Your task to perform on an android device: turn on wifi Image 0: 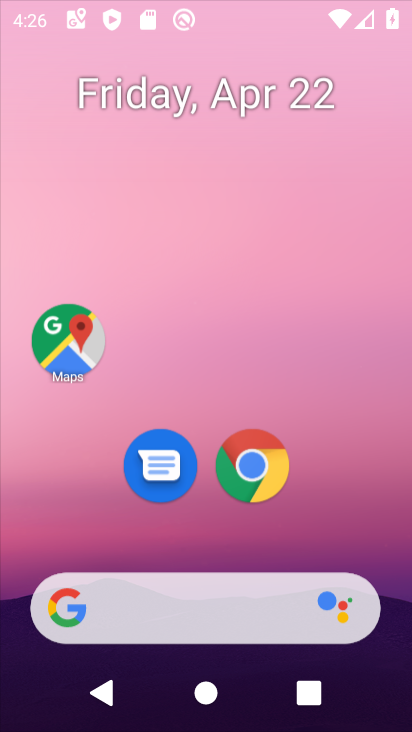
Step 0: drag from (349, 379) to (323, 304)
Your task to perform on an android device: turn on wifi Image 1: 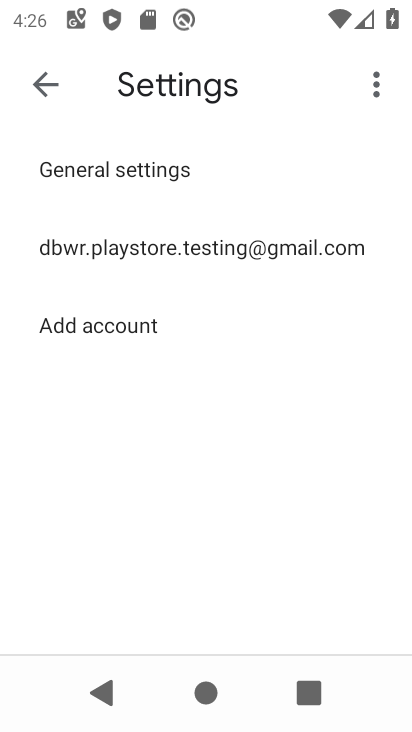
Step 1: press home button
Your task to perform on an android device: turn on wifi Image 2: 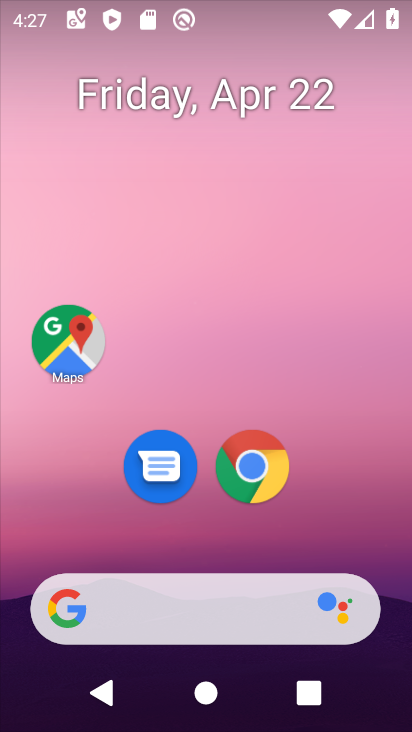
Step 2: drag from (364, 557) to (329, 239)
Your task to perform on an android device: turn on wifi Image 3: 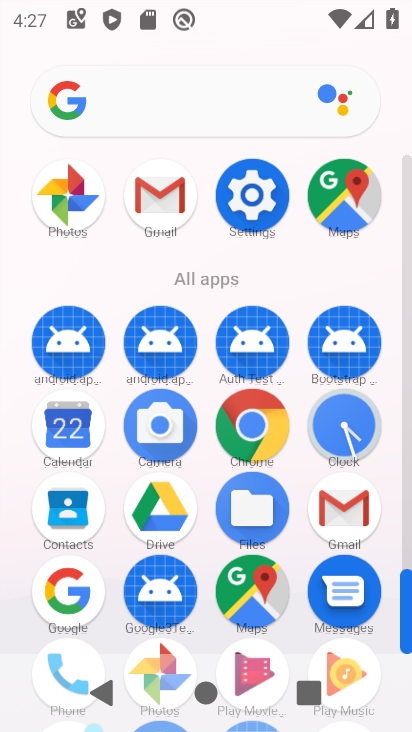
Step 3: click (254, 217)
Your task to perform on an android device: turn on wifi Image 4: 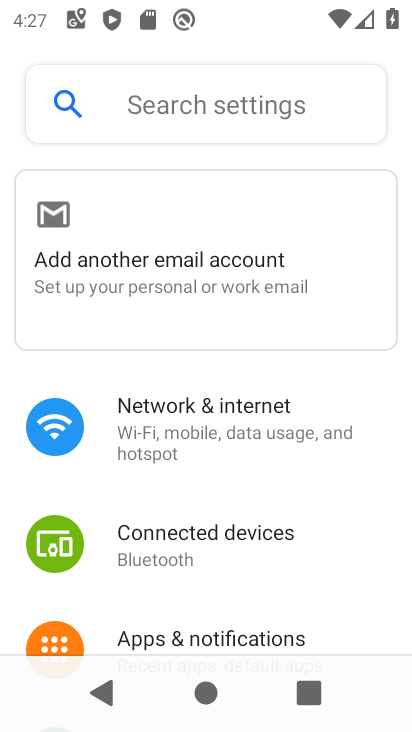
Step 4: click (189, 459)
Your task to perform on an android device: turn on wifi Image 5: 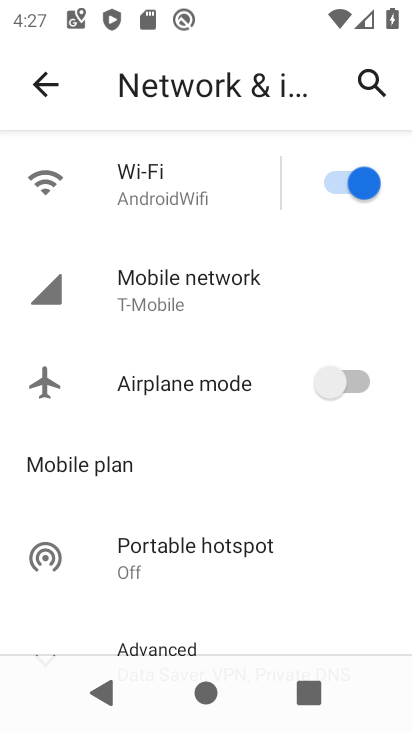
Step 5: task complete